Your task to perform on an android device: manage bookmarks in the chrome app Image 0: 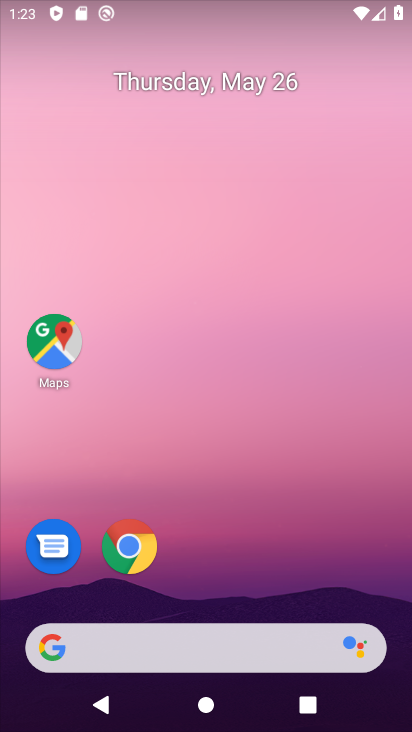
Step 0: click (137, 551)
Your task to perform on an android device: manage bookmarks in the chrome app Image 1: 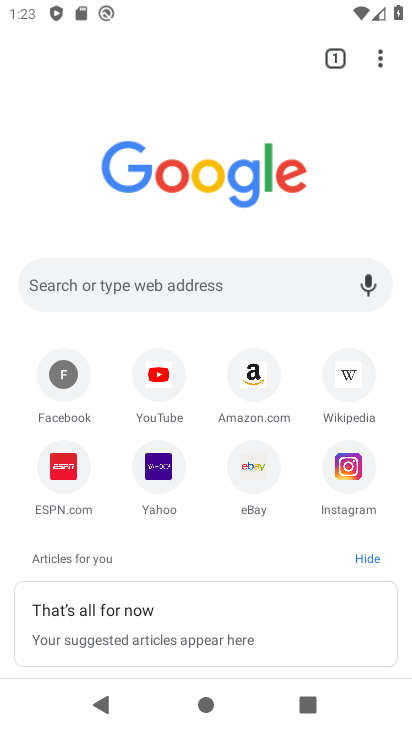
Step 1: click (372, 59)
Your task to perform on an android device: manage bookmarks in the chrome app Image 2: 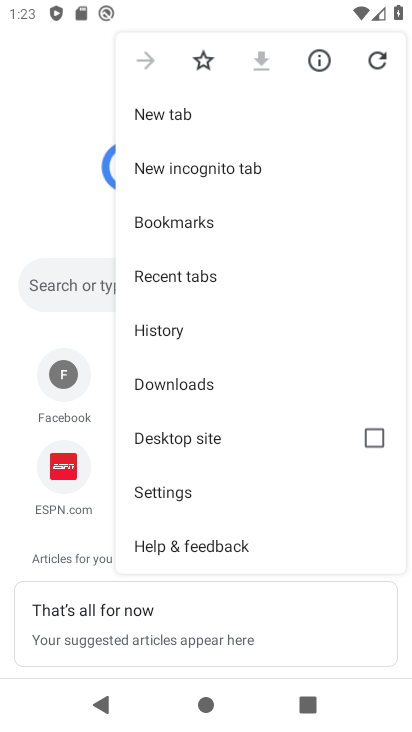
Step 2: drag from (239, 453) to (236, 236)
Your task to perform on an android device: manage bookmarks in the chrome app Image 3: 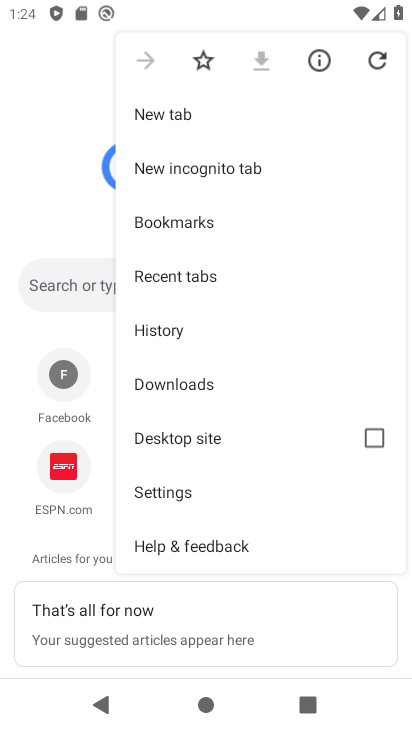
Step 3: click (221, 230)
Your task to perform on an android device: manage bookmarks in the chrome app Image 4: 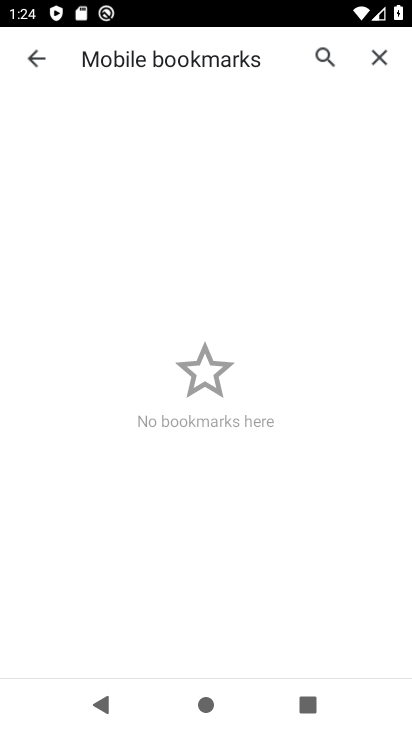
Step 4: task complete